Your task to perform on an android device: Open settings on Google Maps Image 0: 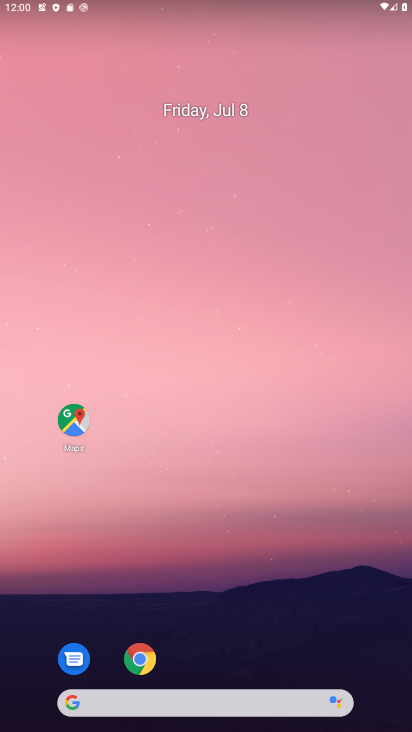
Step 0: click (71, 419)
Your task to perform on an android device: Open settings on Google Maps Image 1: 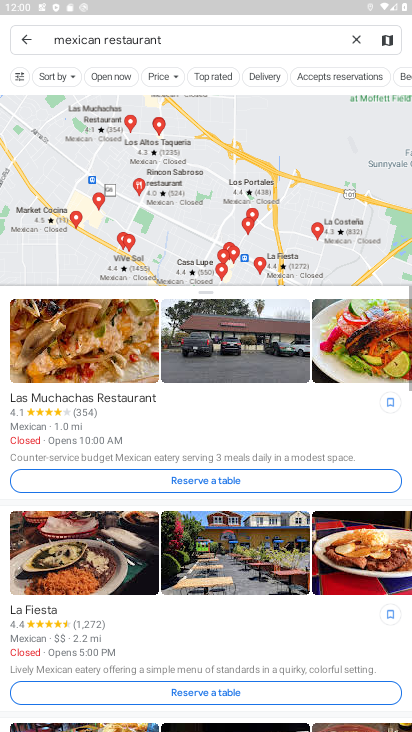
Step 1: click (29, 36)
Your task to perform on an android device: Open settings on Google Maps Image 2: 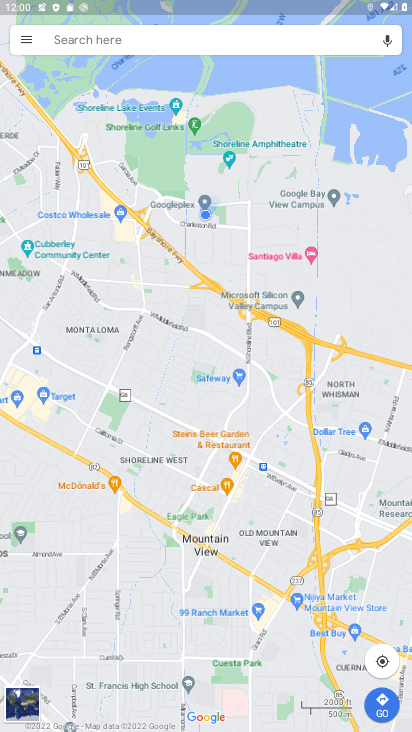
Step 2: click (25, 41)
Your task to perform on an android device: Open settings on Google Maps Image 3: 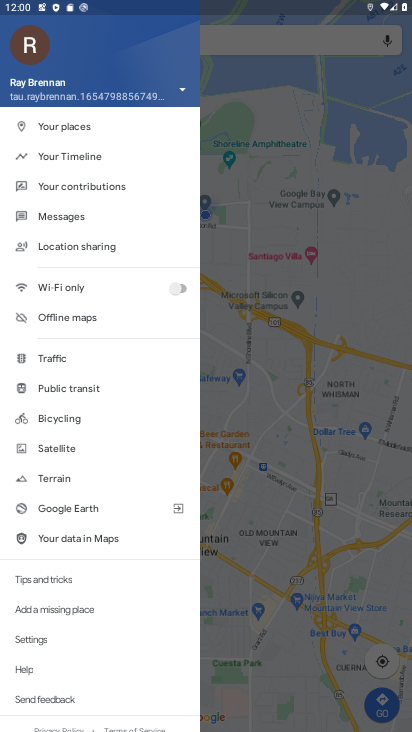
Step 3: click (34, 637)
Your task to perform on an android device: Open settings on Google Maps Image 4: 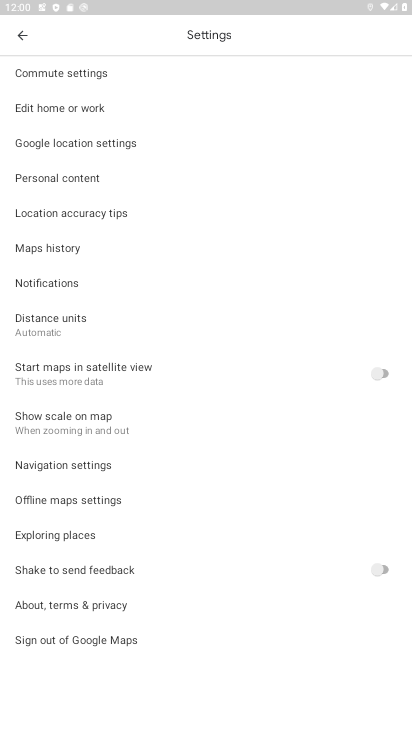
Step 4: task complete